Your task to perform on an android device: toggle airplane mode Image 0: 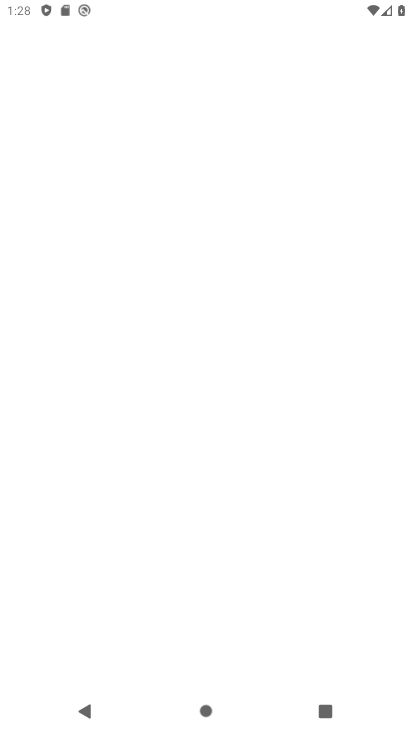
Step 0: press back button
Your task to perform on an android device: toggle airplane mode Image 1: 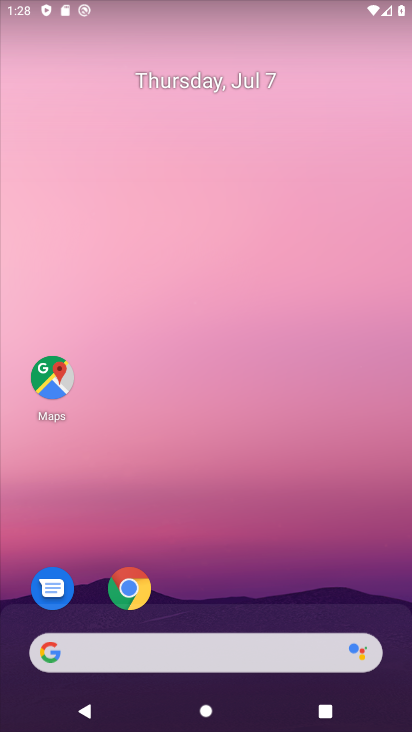
Step 1: drag from (133, 1) to (212, 562)
Your task to perform on an android device: toggle airplane mode Image 2: 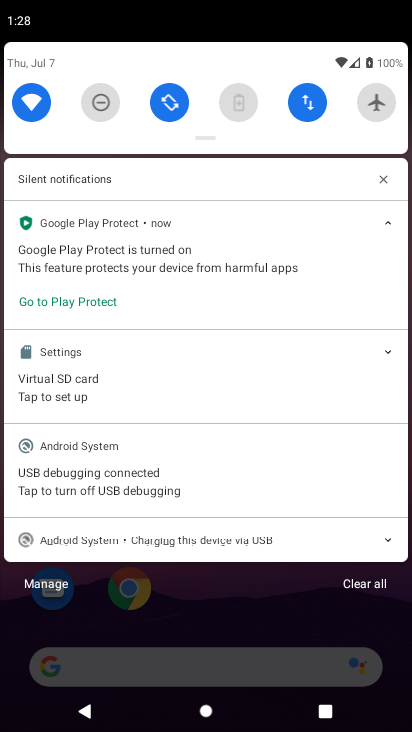
Step 2: click (377, 94)
Your task to perform on an android device: toggle airplane mode Image 3: 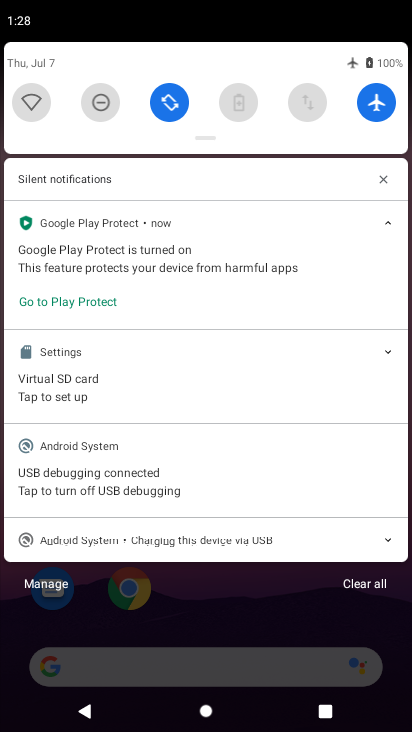
Step 3: task complete